Your task to perform on an android device: Go to Yahoo.com Image 0: 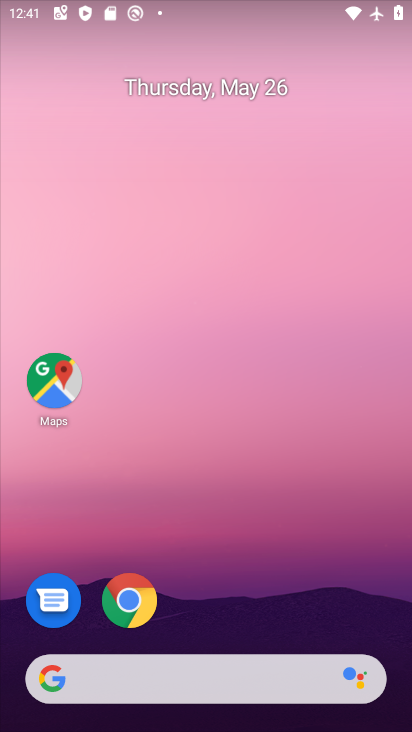
Step 0: drag from (302, 596) to (231, 70)
Your task to perform on an android device: Go to Yahoo.com Image 1: 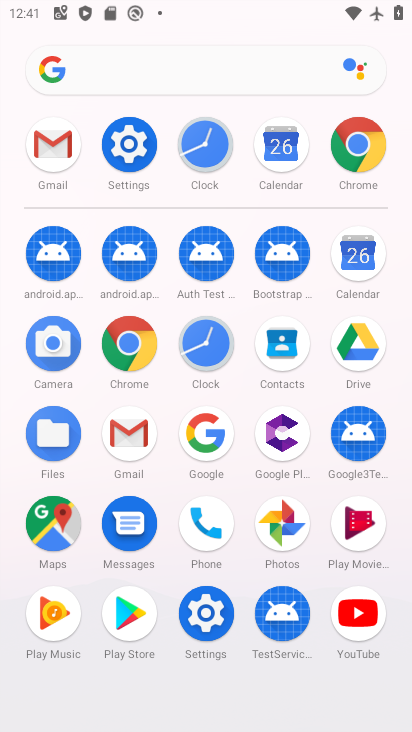
Step 1: click (367, 132)
Your task to perform on an android device: Go to Yahoo.com Image 2: 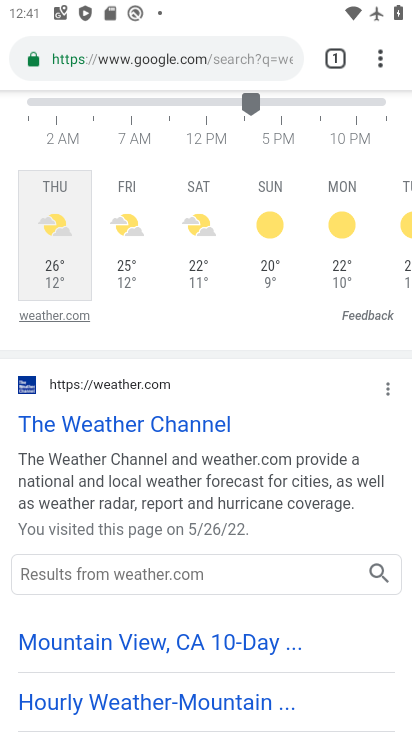
Step 2: click (216, 53)
Your task to perform on an android device: Go to Yahoo.com Image 3: 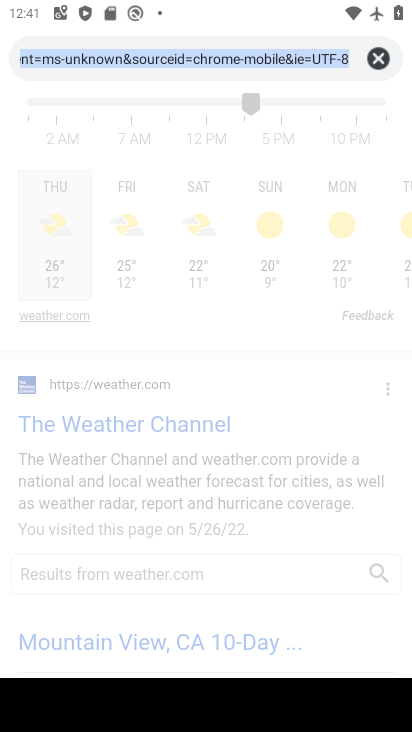
Step 3: type "yahoo.com"
Your task to perform on an android device: Go to Yahoo.com Image 4: 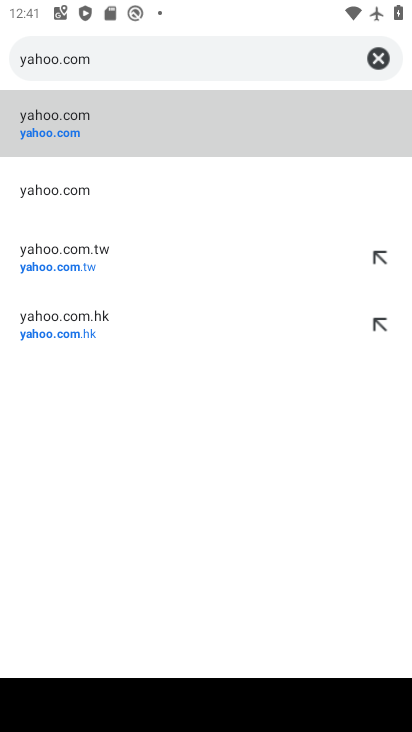
Step 4: click (42, 128)
Your task to perform on an android device: Go to Yahoo.com Image 5: 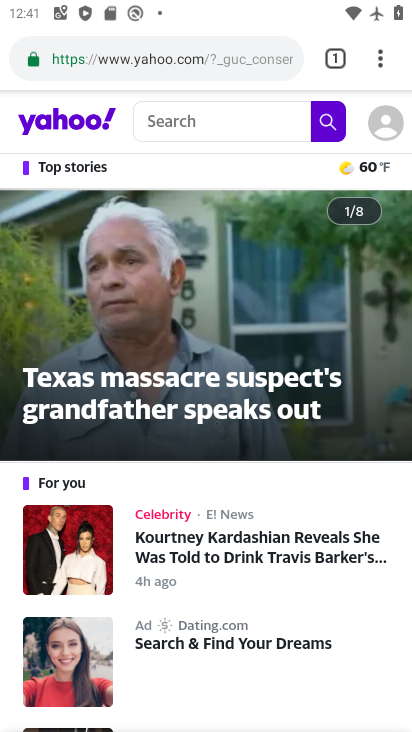
Step 5: task complete